Your task to perform on an android device: Open ESPN.com Image 0: 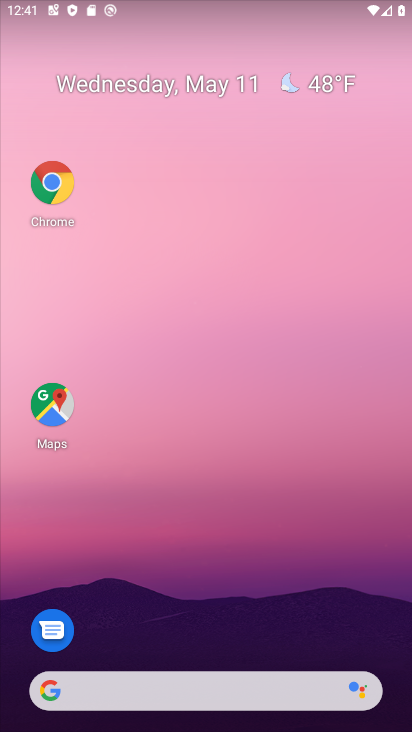
Step 0: drag from (207, 655) to (117, 45)
Your task to perform on an android device: Open ESPN.com Image 1: 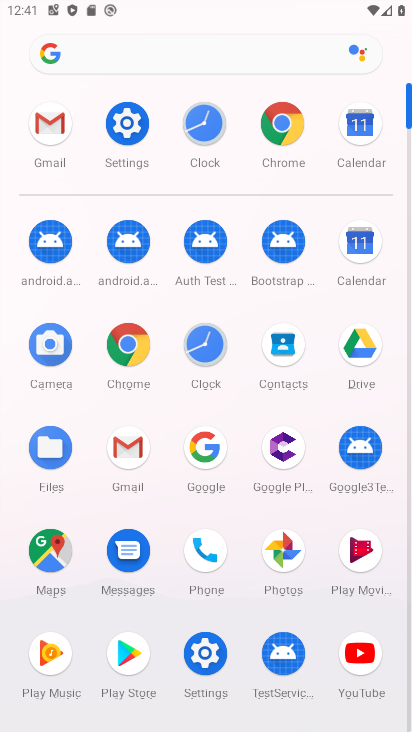
Step 1: click (139, 338)
Your task to perform on an android device: Open ESPN.com Image 2: 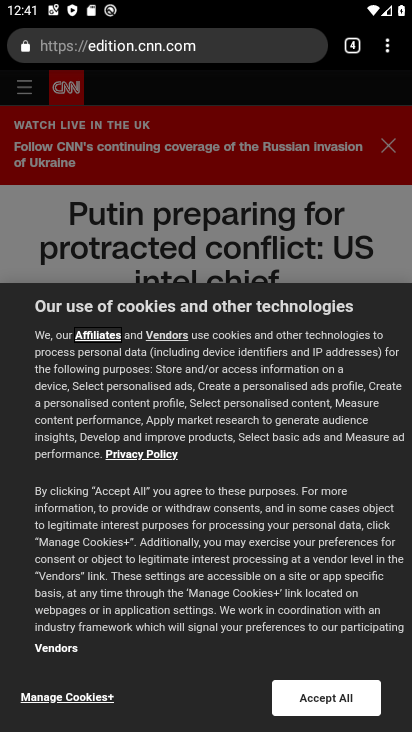
Step 2: click (355, 48)
Your task to perform on an android device: Open ESPN.com Image 3: 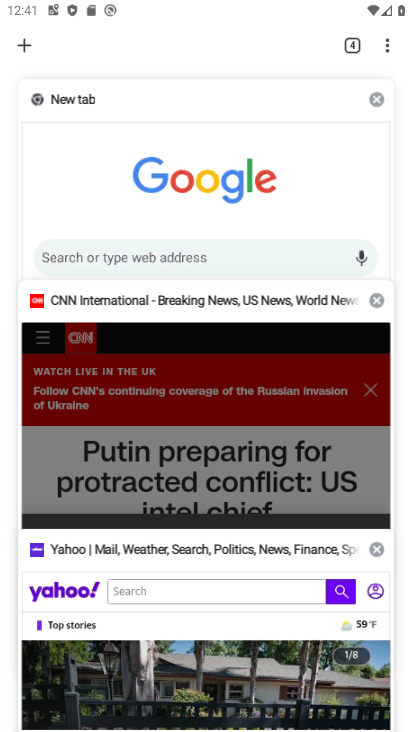
Step 3: click (29, 56)
Your task to perform on an android device: Open ESPN.com Image 4: 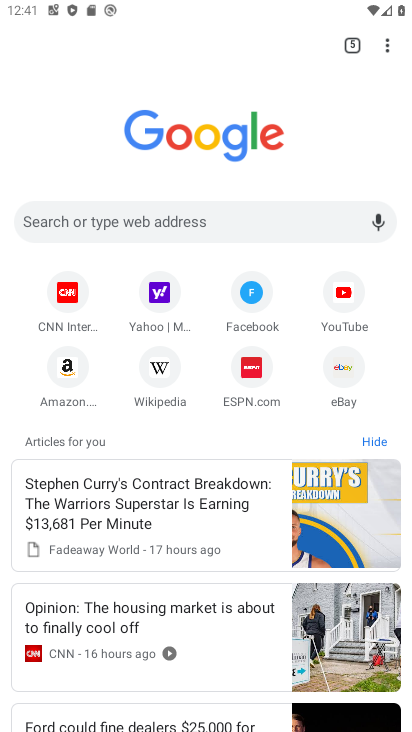
Step 4: click (248, 363)
Your task to perform on an android device: Open ESPN.com Image 5: 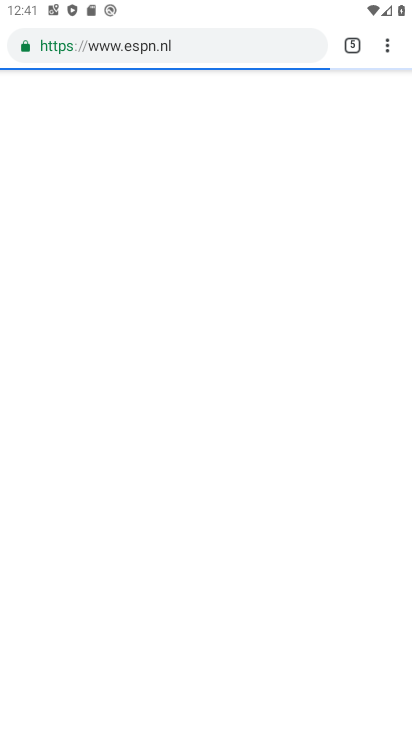
Step 5: task complete